Your task to perform on an android device: Go to privacy settings Image 0: 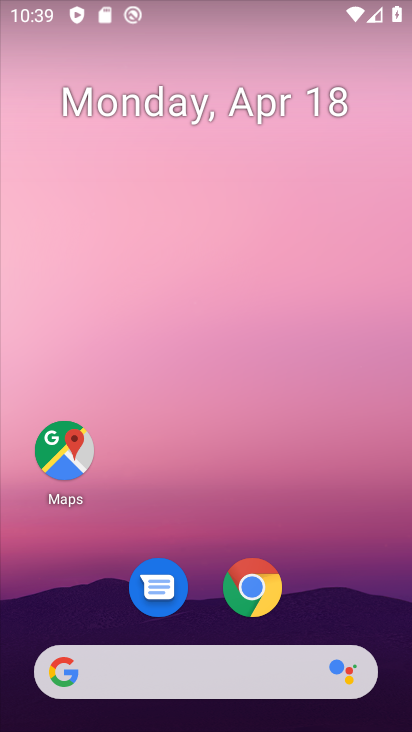
Step 0: drag from (336, 572) to (392, 24)
Your task to perform on an android device: Go to privacy settings Image 1: 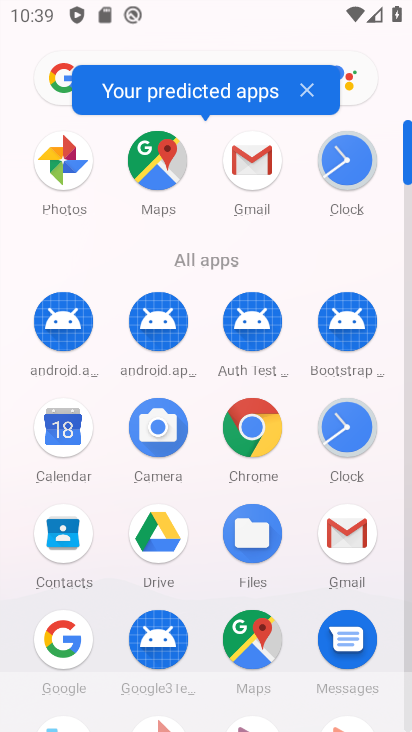
Step 1: click (257, 436)
Your task to perform on an android device: Go to privacy settings Image 2: 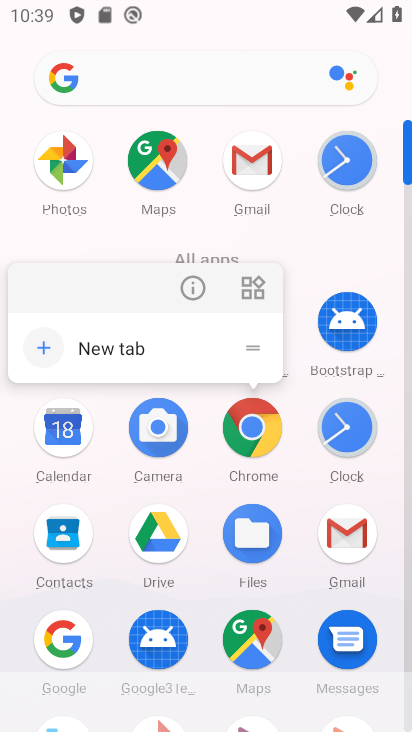
Step 2: click (252, 426)
Your task to perform on an android device: Go to privacy settings Image 3: 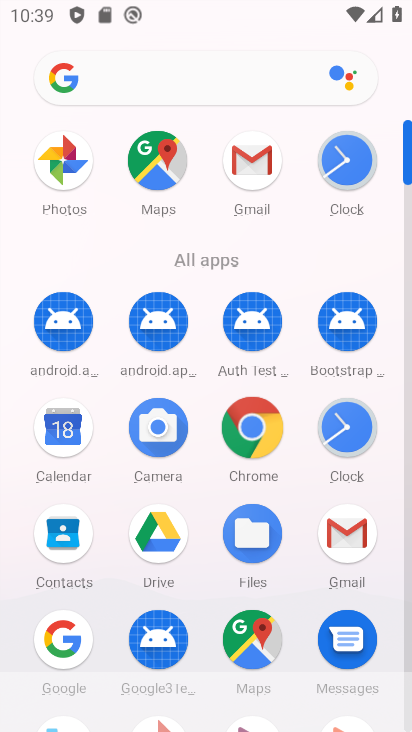
Step 3: click (252, 426)
Your task to perform on an android device: Go to privacy settings Image 4: 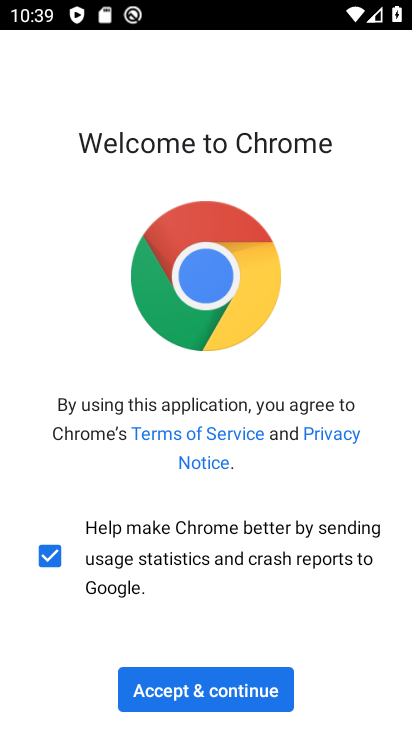
Step 4: click (220, 688)
Your task to perform on an android device: Go to privacy settings Image 5: 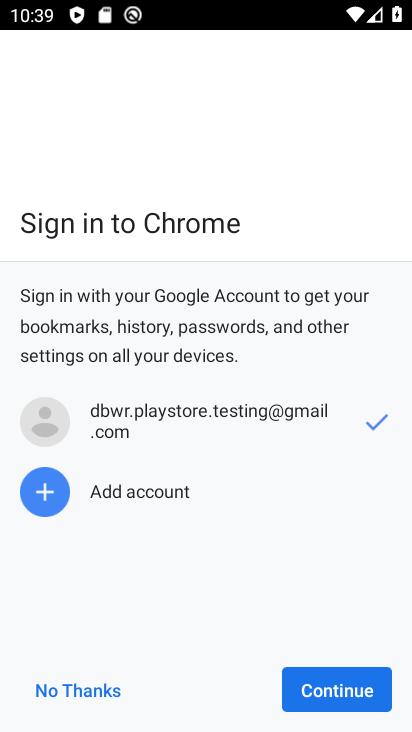
Step 5: click (311, 692)
Your task to perform on an android device: Go to privacy settings Image 6: 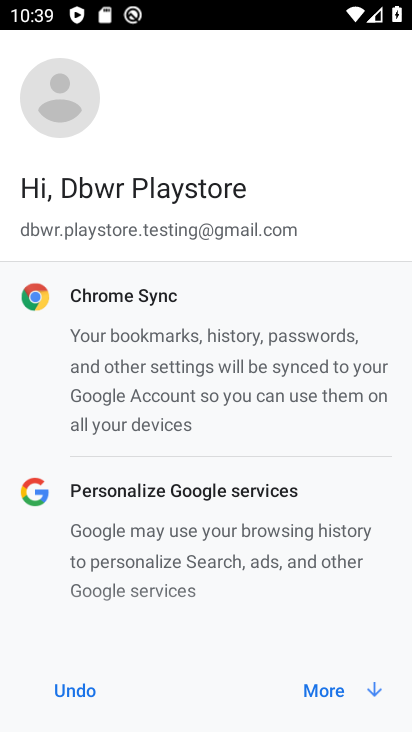
Step 6: click (311, 692)
Your task to perform on an android device: Go to privacy settings Image 7: 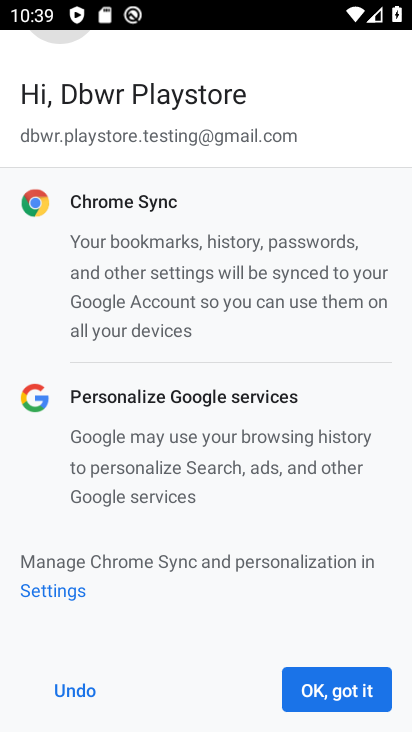
Step 7: click (311, 692)
Your task to perform on an android device: Go to privacy settings Image 8: 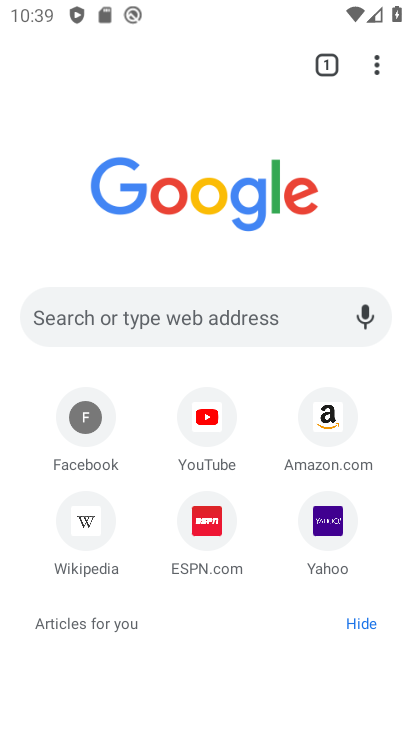
Step 8: drag from (374, 74) to (213, 546)
Your task to perform on an android device: Go to privacy settings Image 9: 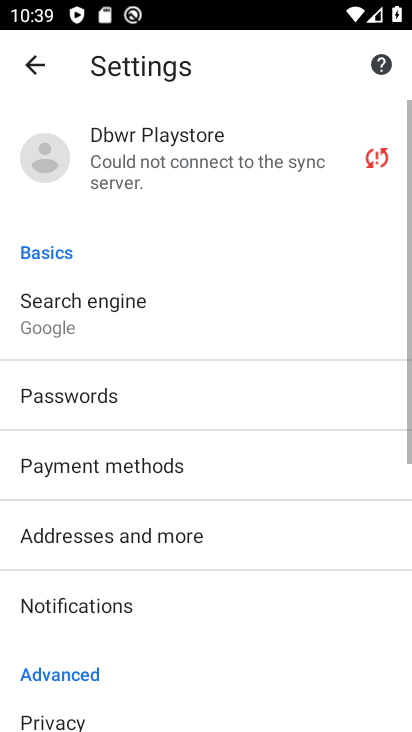
Step 9: drag from (274, 642) to (297, 182)
Your task to perform on an android device: Go to privacy settings Image 10: 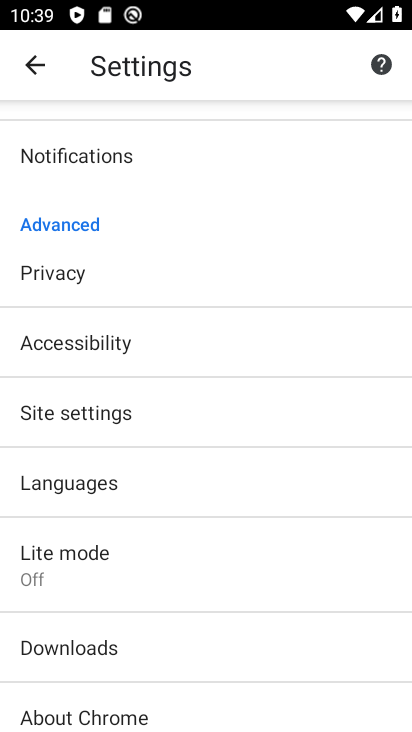
Step 10: click (66, 271)
Your task to perform on an android device: Go to privacy settings Image 11: 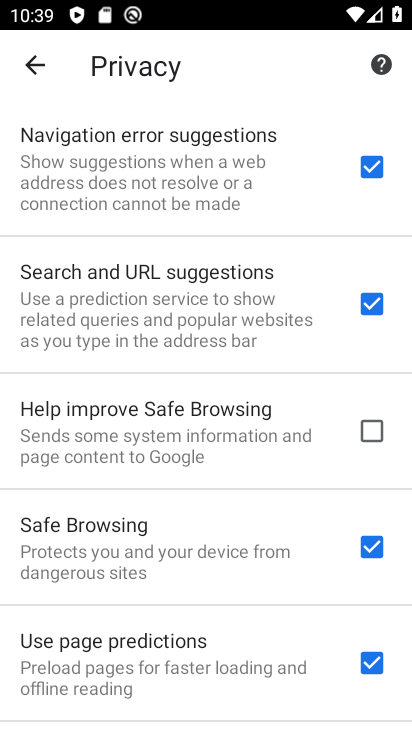
Step 11: task complete